Your task to perform on an android device: What's the weather going to be this weekend? Image 0: 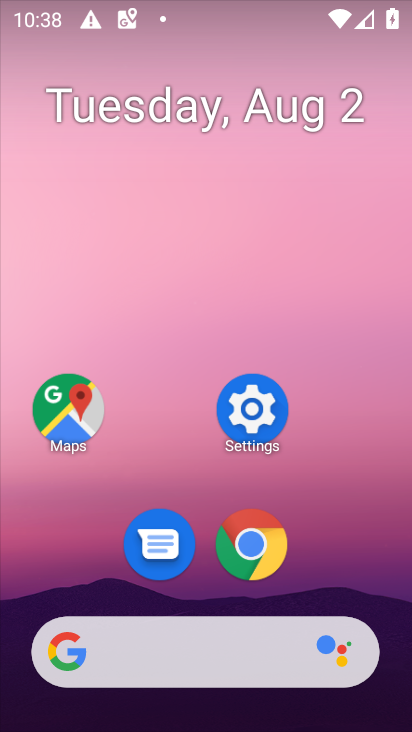
Step 0: click (150, 638)
Your task to perform on an android device: What's the weather going to be this weekend? Image 1: 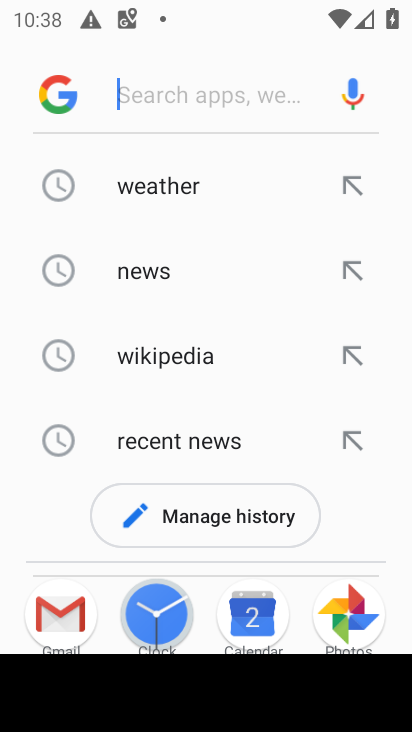
Step 1: click (170, 180)
Your task to perform on an android device: What's the weather going to be this weekend? Image 2: 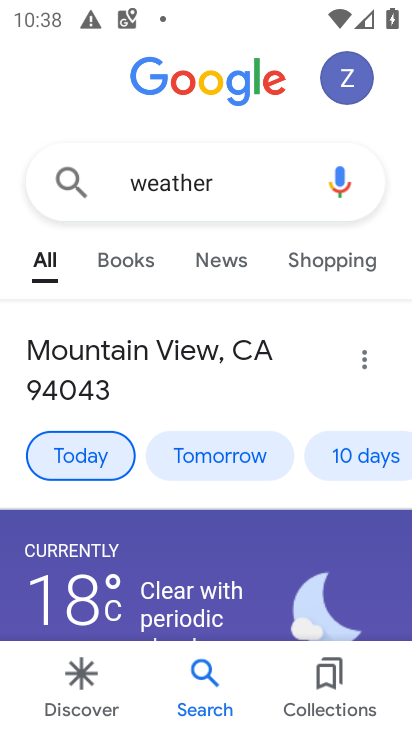
Step 2: click (347, 456)
Your task to perform on an android device: What's the weather going to be this weekend? Image 3: 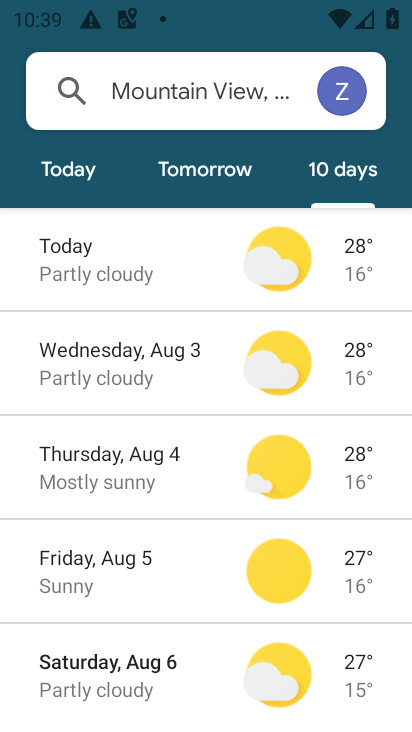
Step 3: click (140, 670)
Your task to perform on an android device: What's the weather going to be this weekend? Image 4: 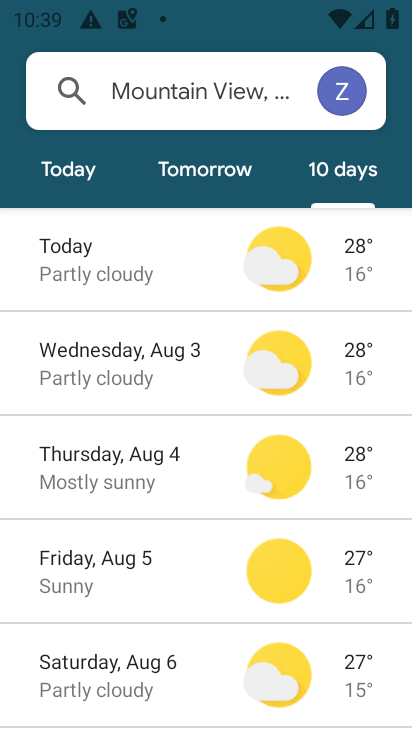
Step 4: drag from (202, 648) to (319, 245)
Your task to perform on an android device: What's the weather going to be this weekend? Image 5: 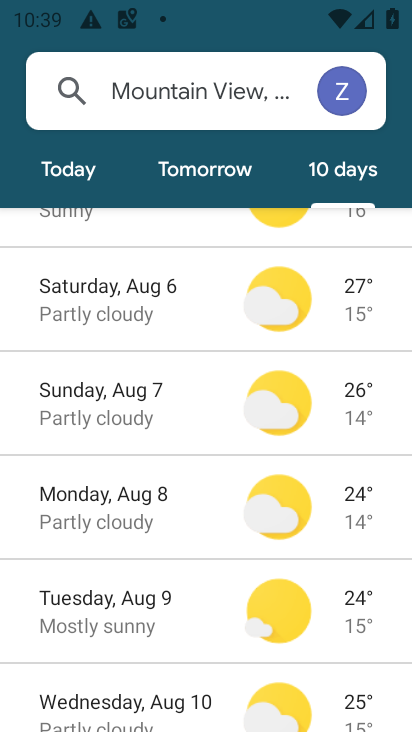
Step 5: click (115, 286)
Your task to perform on an android device: What's the weather going to be this weekend? Image 6: 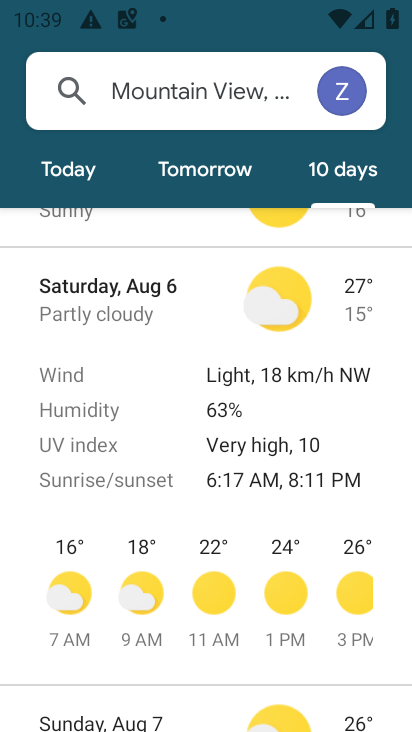
Step 6: task complete